Your task to perform on an android device: empty trash in the gmail app Image 0: 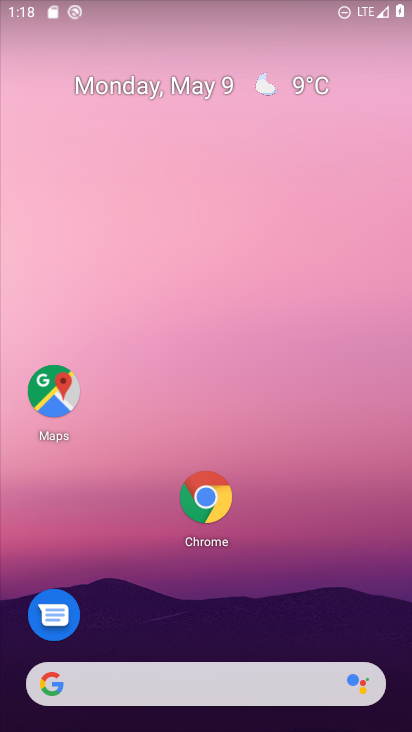
Step 0: drag from (281, 441) to (240, 132)
Your task to perform on an android device: empty trash in the gmail app Image 1: 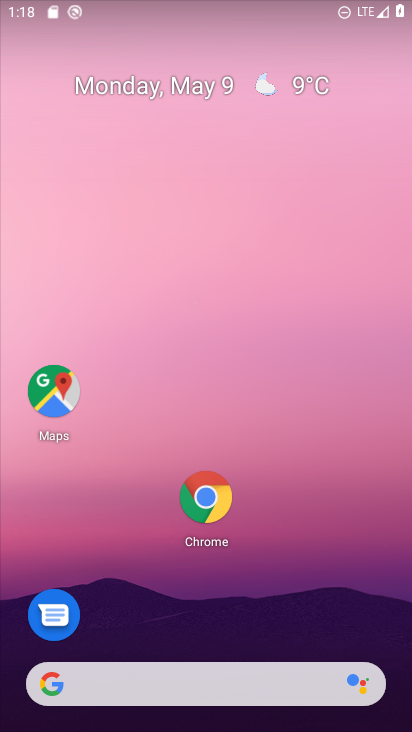
Step 1: drag from (311, 541) to (239, 77)
Your task to perform on an android device: empty trash in the gmail app Image 2: 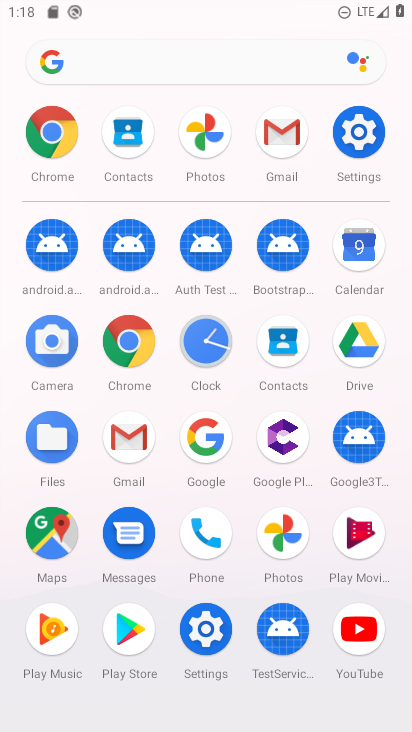
Step 2: click (275, 124)
Your task to perform on an android device: empty trash in the gmail app Image 3: 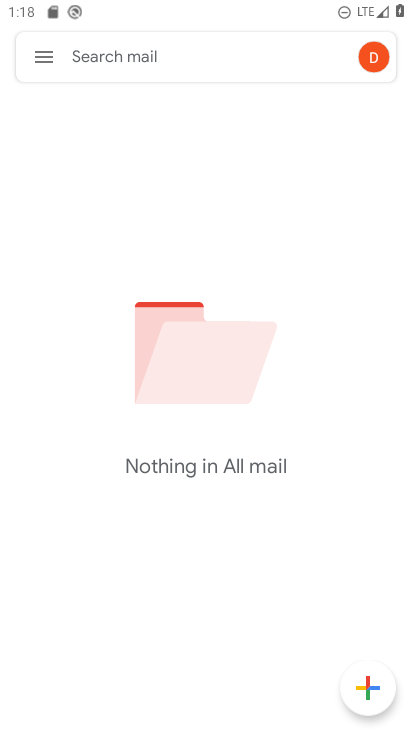
Step 3: click (34, 48)
Your task to perform on an android device: empty trash in the gmail app Image 4: 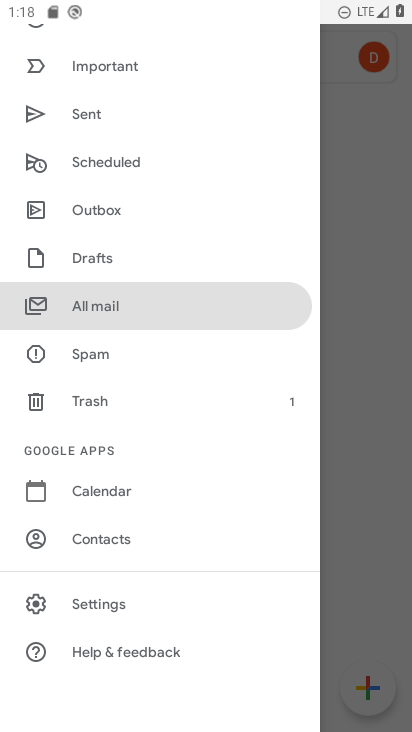
Step 4: click (91, 388)
Your task to perform on an android device: empty trash in the gmail app Image 5: 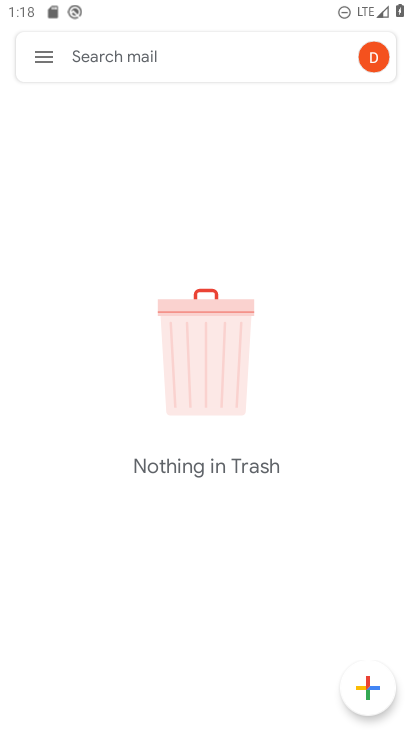
Step 5: task complete